Your task to perform on an android device: add a contact in the contacts app Image 0: 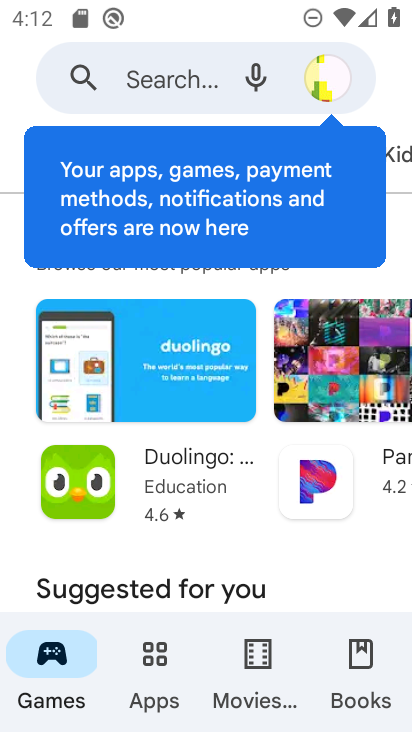
Step 0: press home button
Your task to perform on an android device: add a contact in the contacts app Image 1: 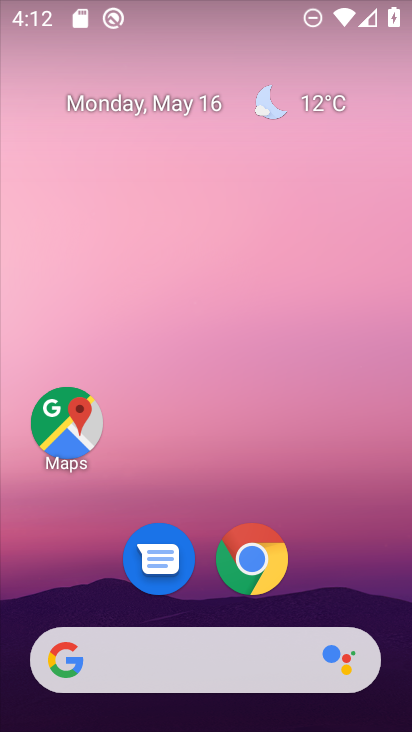
Step 1: drag from (347, 567) to (336, 170)
Your task to perform on an android device: add a contact in the contacts app Image 2: 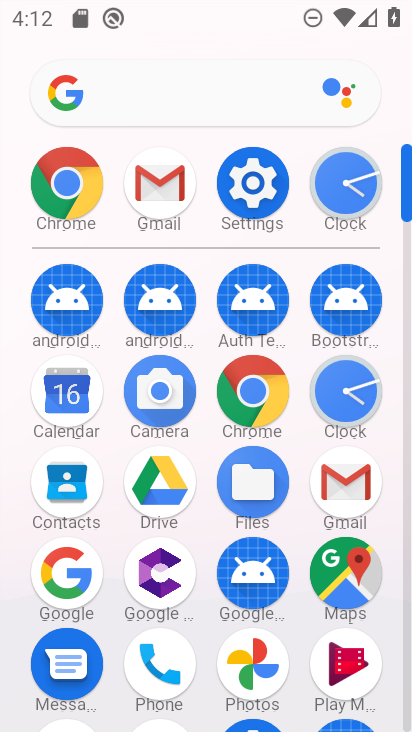
Step 2: click (65, 508)
Your task to perform on an android device: add a contact in the contacts app Image 3: 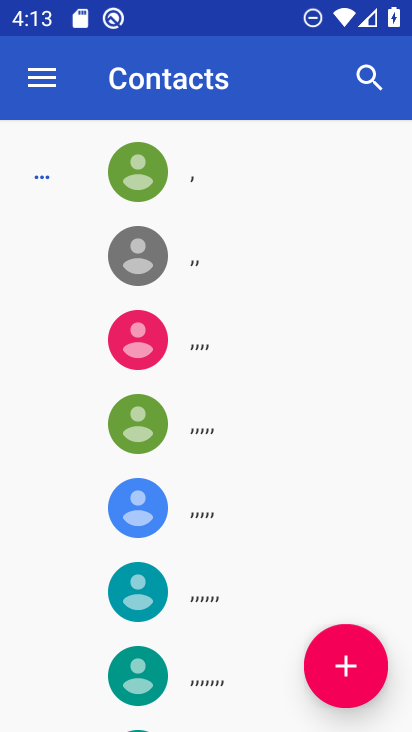
Step 3: click (357, 649)
Your task to perform on an android device: add a contact in the contacts app Image 4: 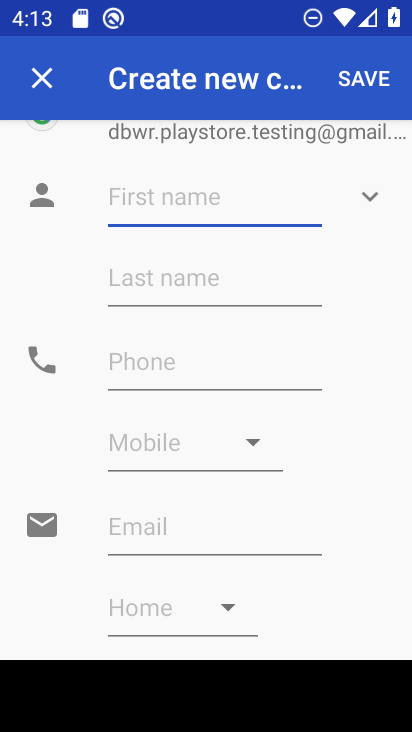
Step 4: type "sdfvdfvd"
Your task to perform on an android device: add a contact in the contacts app Image 5: 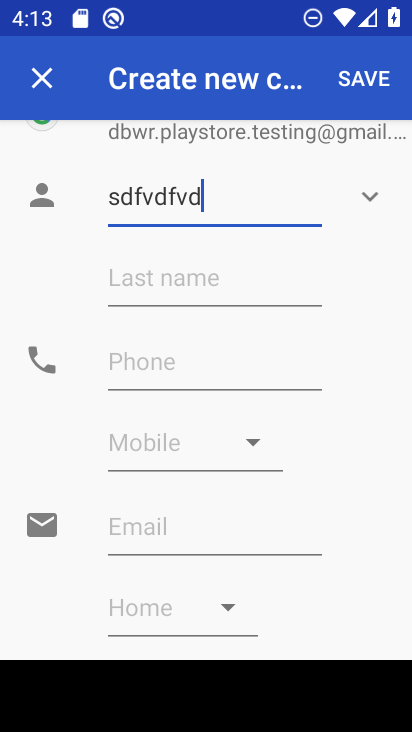
Step 5: click (179, 271)
Your task to perform on an android device: add a contact in the contacts app Image 6: 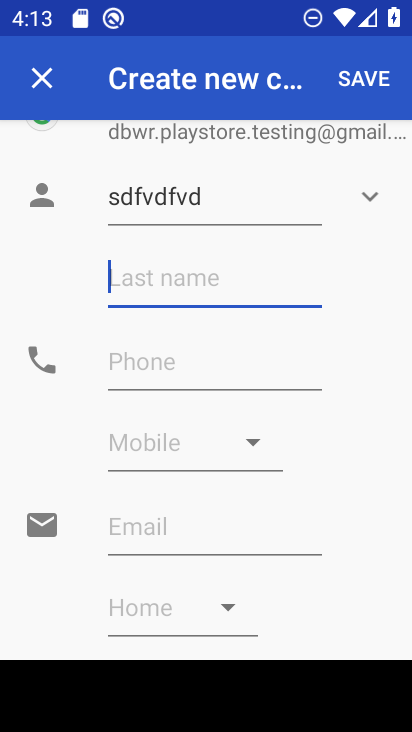
Step 6: type "dfgrtht"
Your task to perform on an android device: add a contact in the contacts app Image 7: 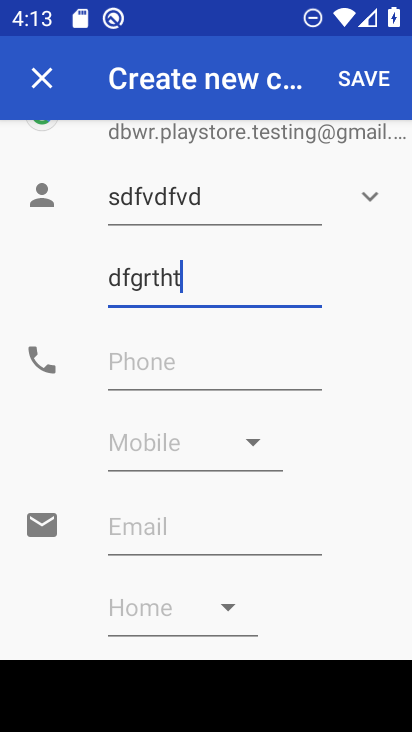
Step 7: click (156, 379)
Your task to perform on an android device: add a contact in the contacts app Image 8: 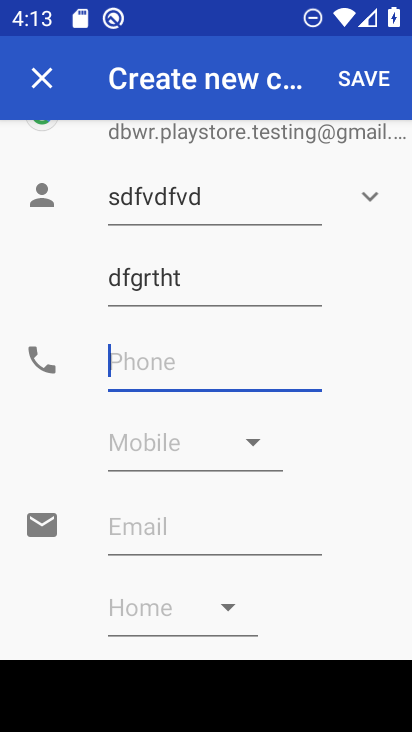
Step 8: type "234354645"
Your task to perform on an android device: add a contact in the contacts app Image 9: 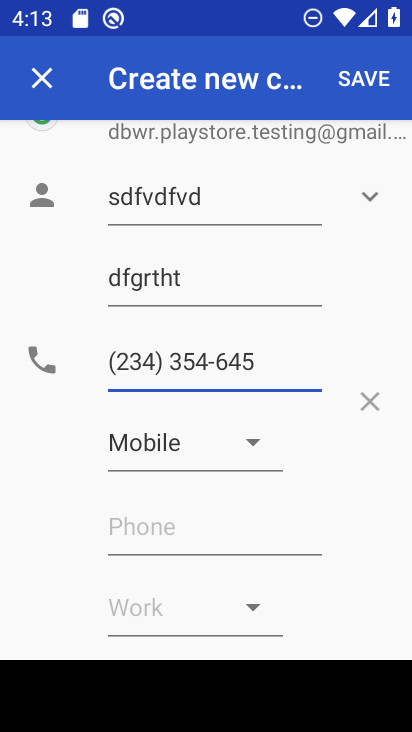
Step 9: click (383, 70)
Your task to perform on an android device: add a contact in the contacts app Image 10: 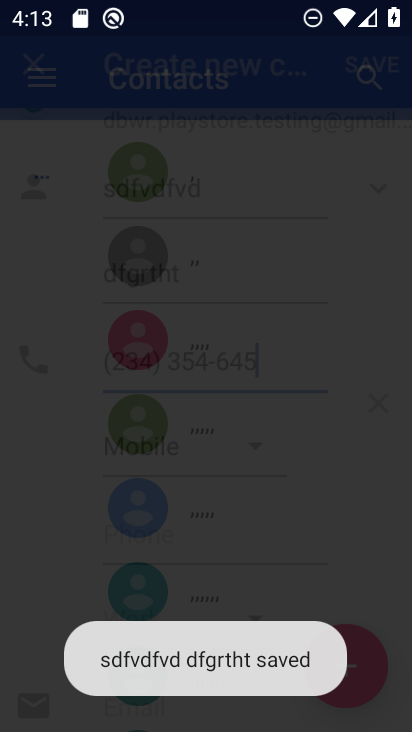
Step 10: task complete